Your task to perform on an android device: install app "Google Translate" Image 0: 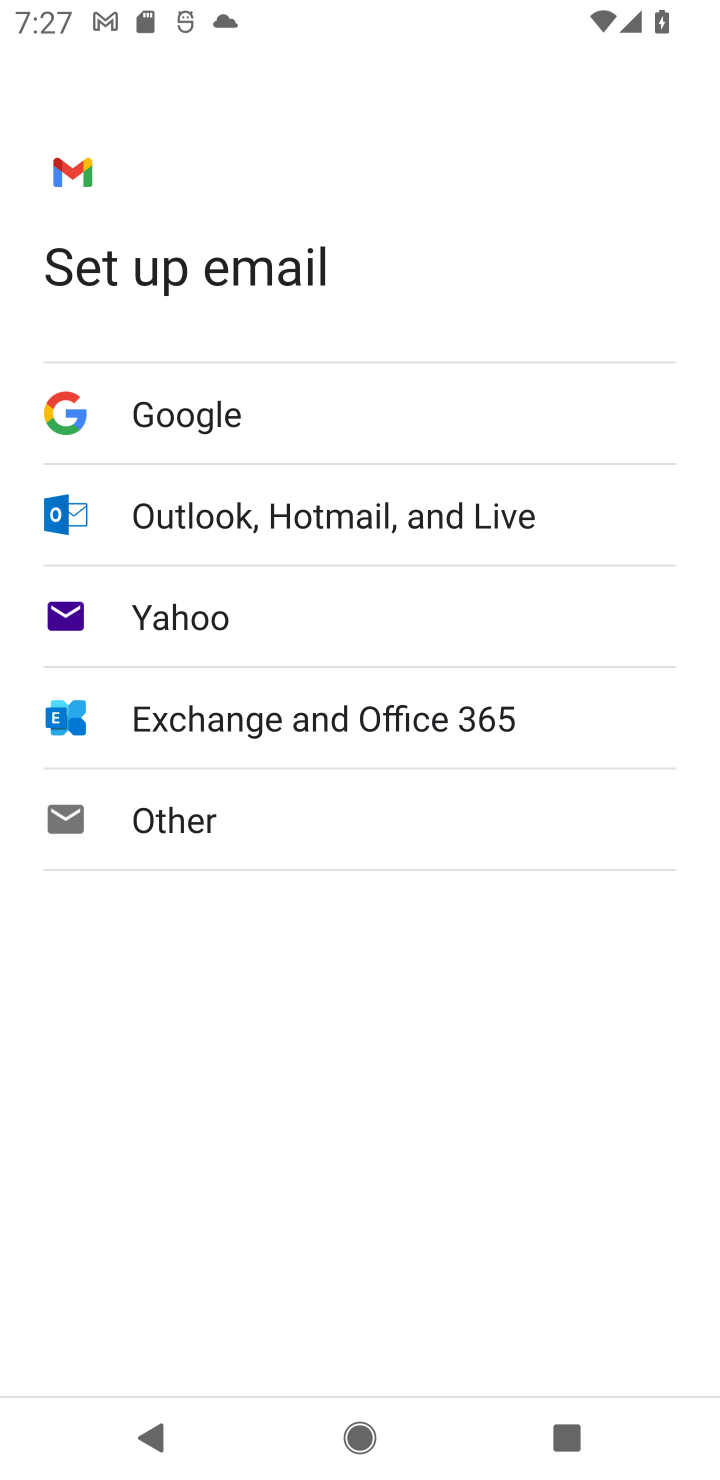
Step 0: press home button
Your task to perform on an android device: install app "Google Translate" Image 1: 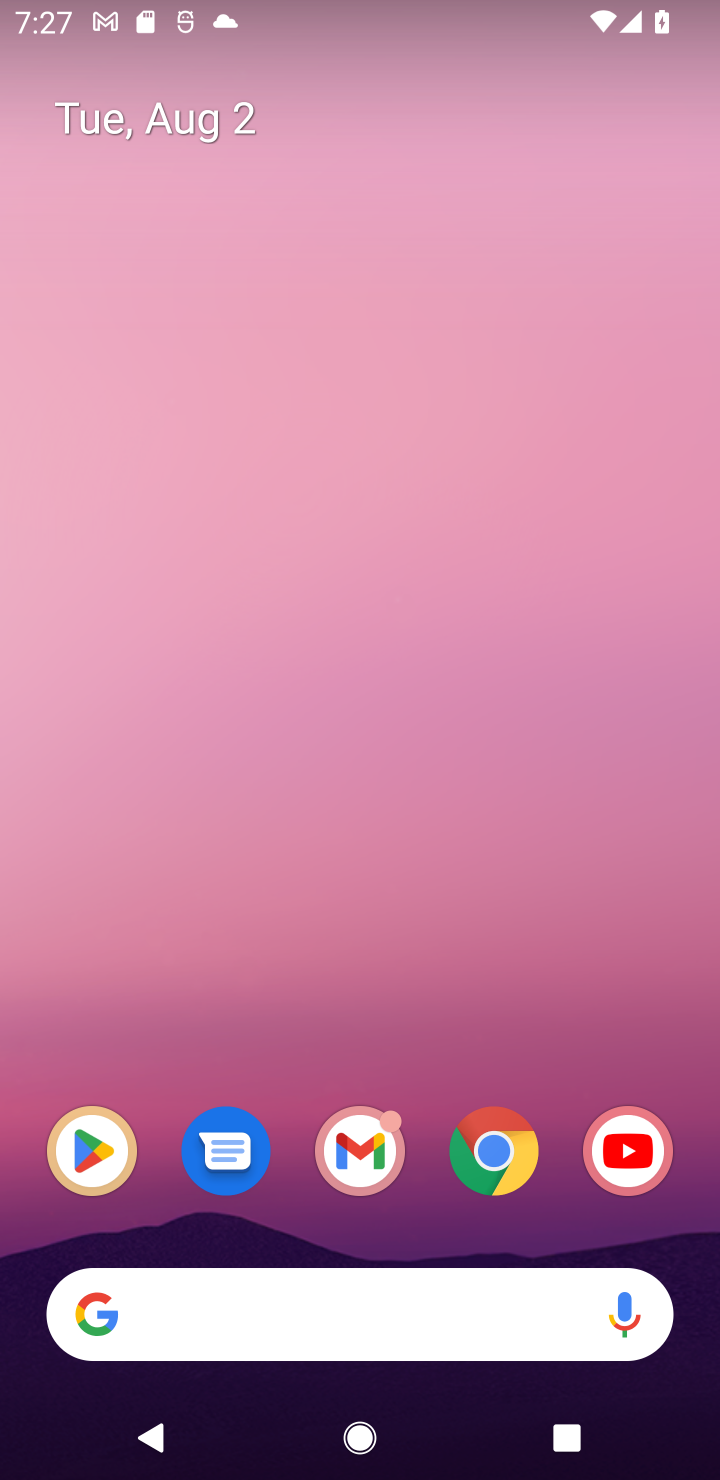
Step 1: click (109, 1159)
Your task to perform on an android device: install app "Google Translate" Image 2: 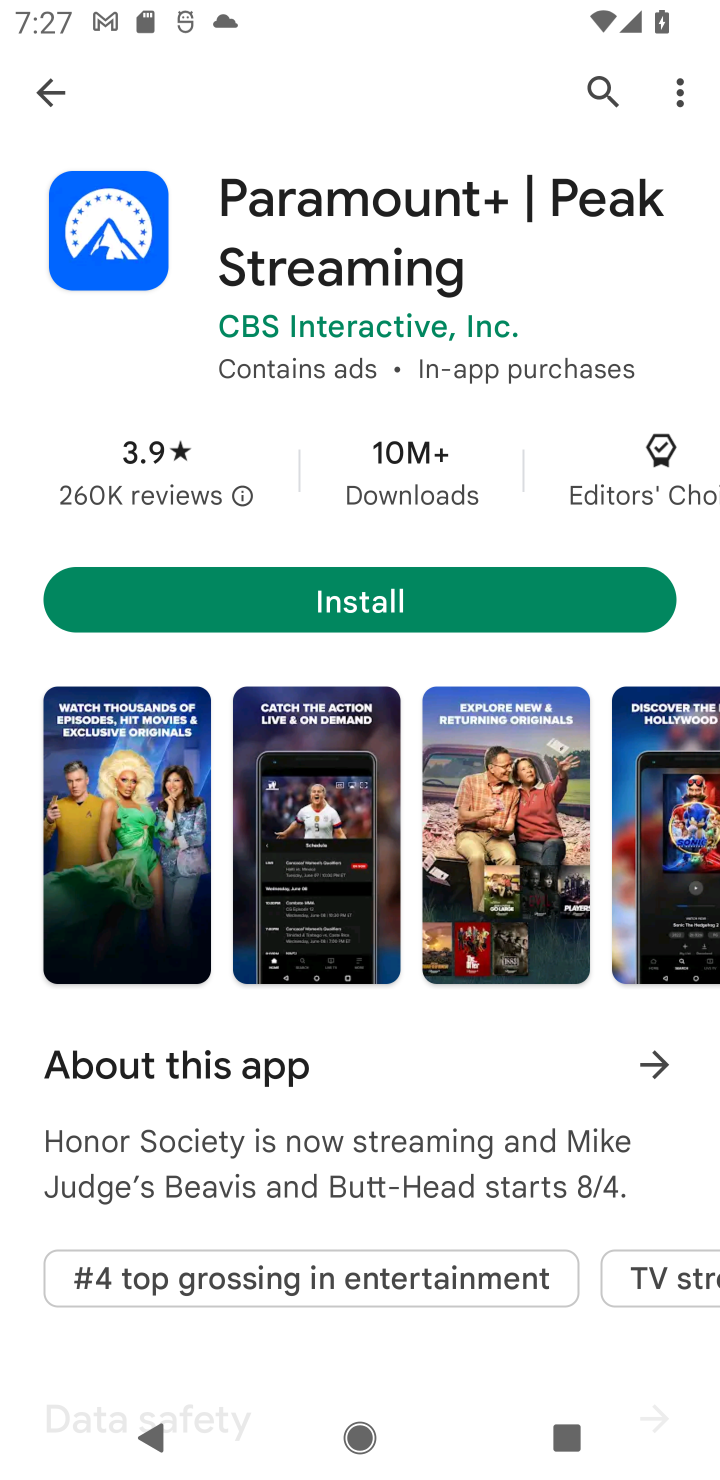
Step 2: click (603, 94)
Your task to perform on an android device: install app "Google Translate" Image 3: 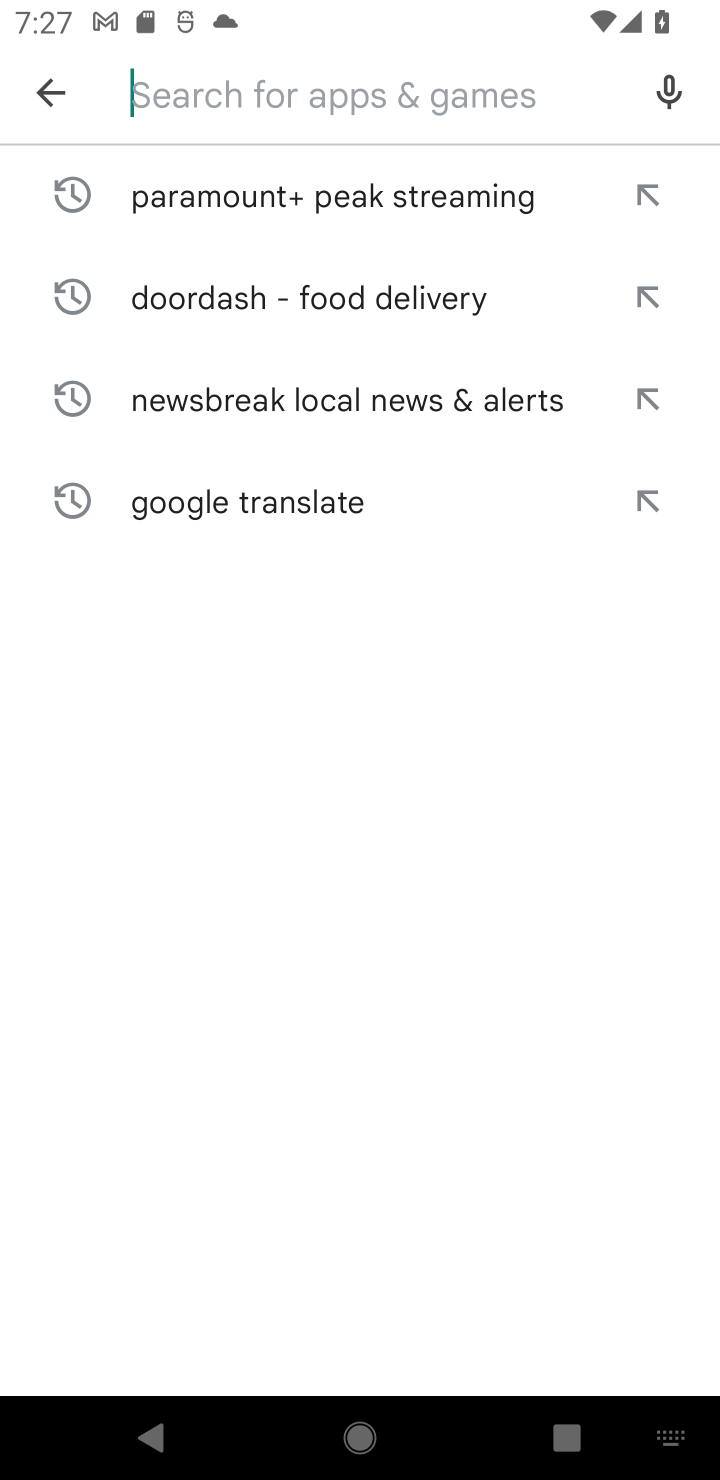
Step 3: type "Google Translate"
Your task to perform on an android device: install app "Google Translate" Image 4: 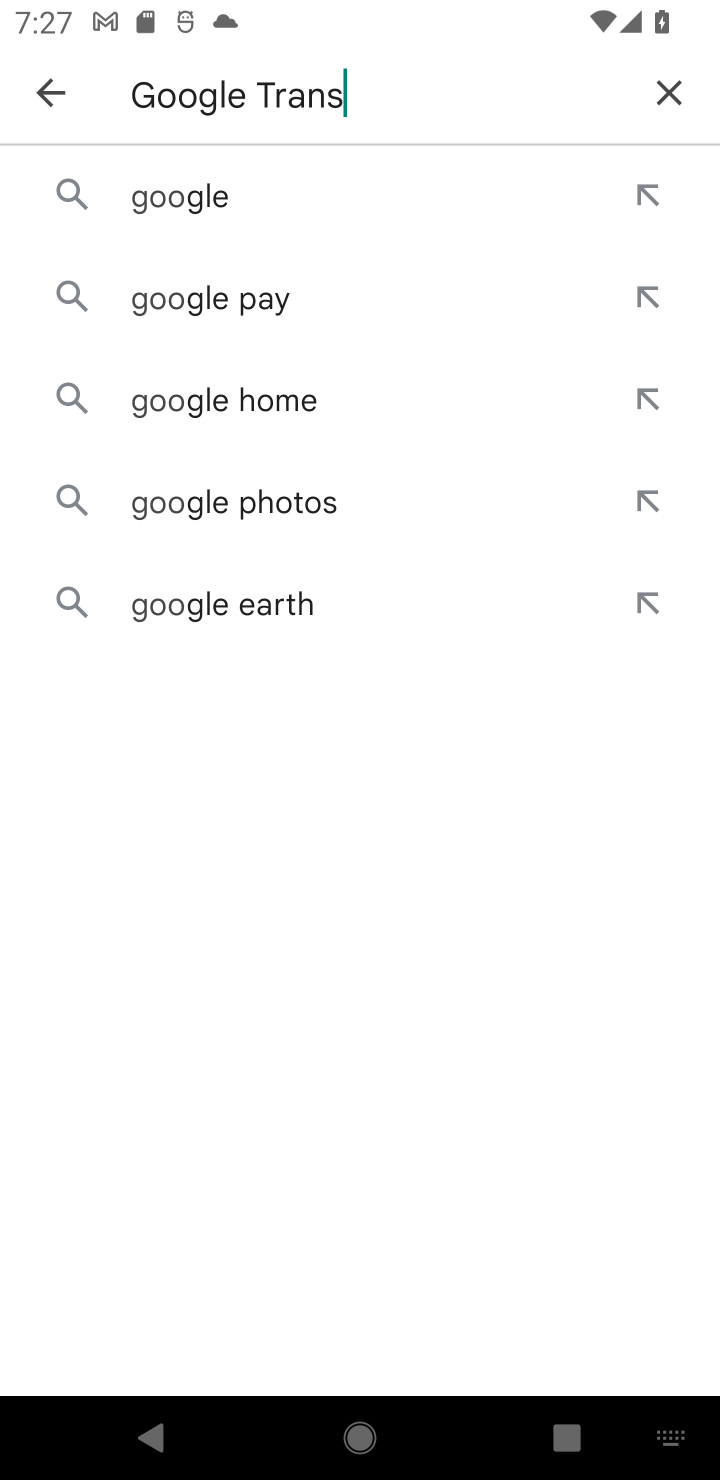
Step 4: type ""
Your task to perform on an android device: install app "Google Translate" Image 5: 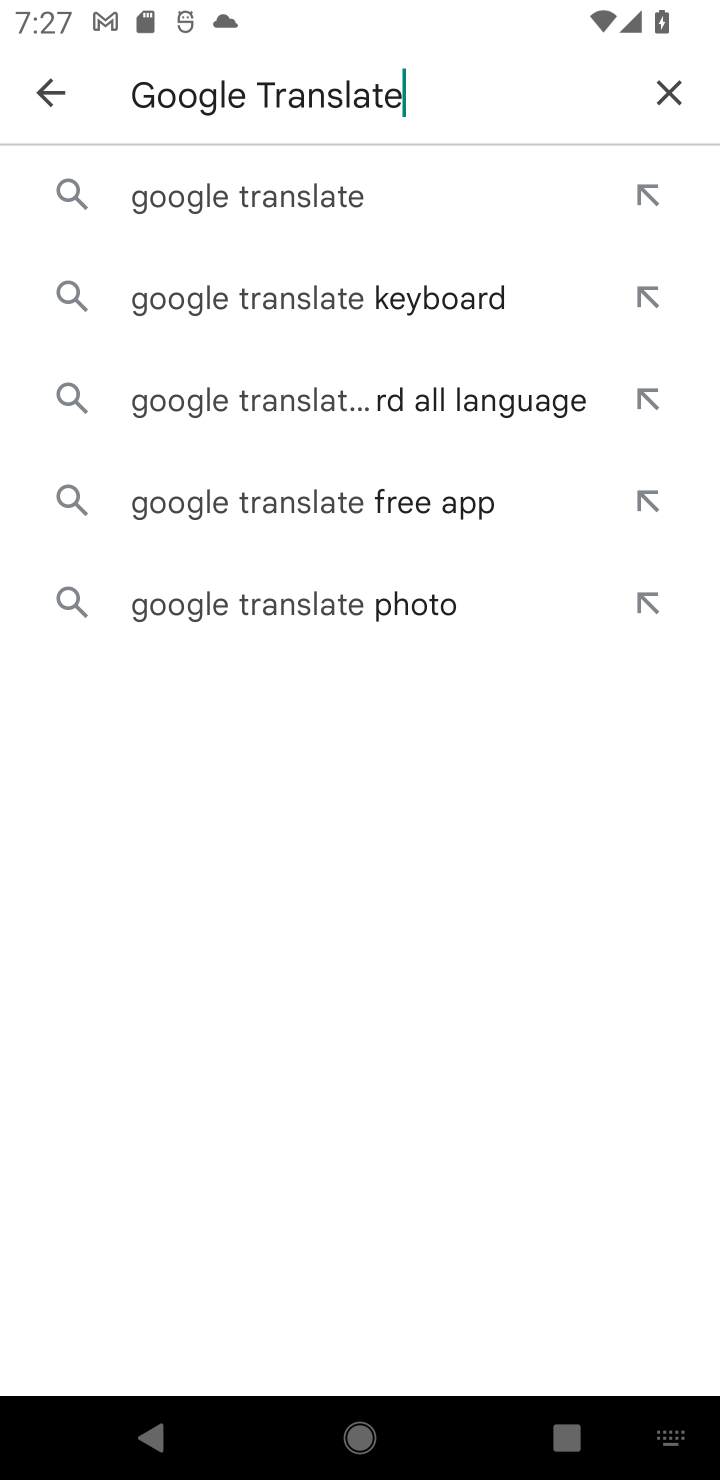
Step 5: click (318, 212)
Your task to perform on an android device: install app "Google Translate" Image 6: 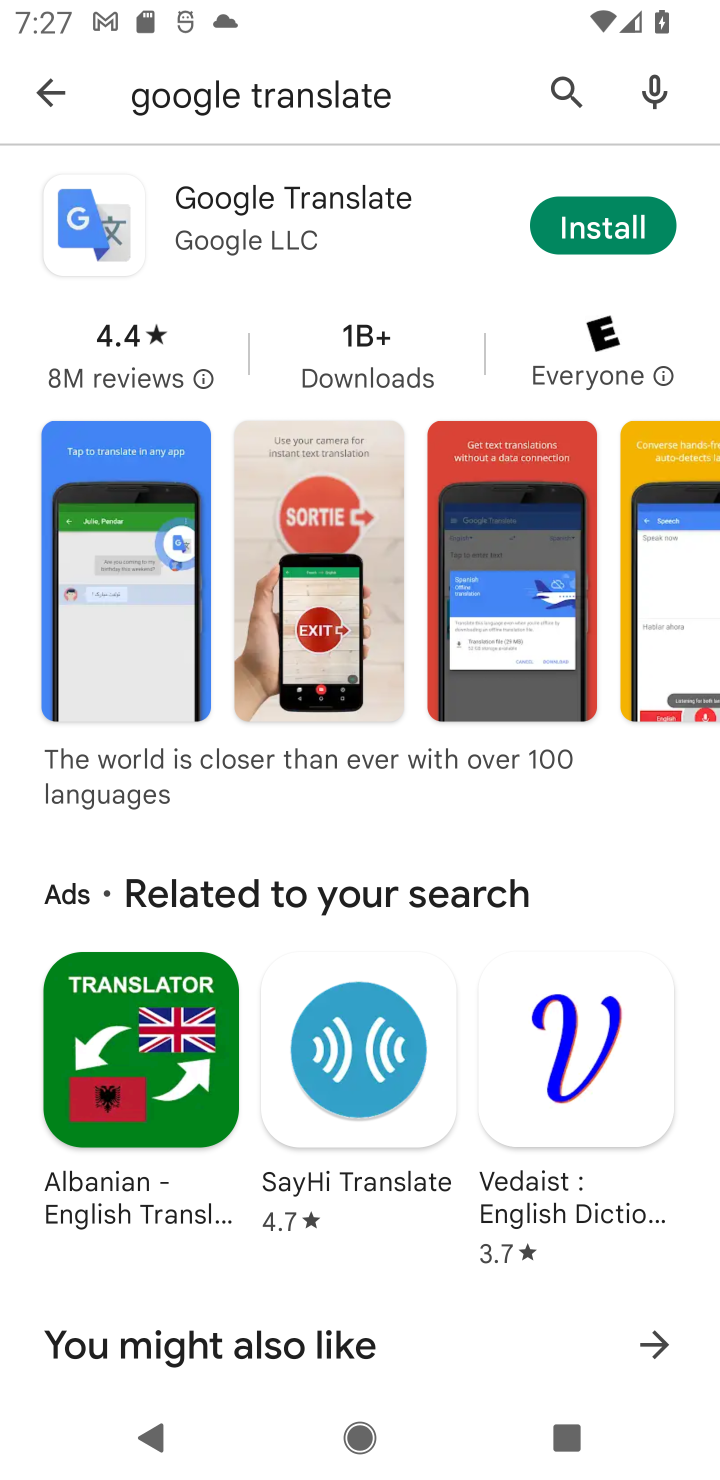
Step 6: click (589, 219)
Your task to perform on an android device: install app "Google Translate" Image 7: 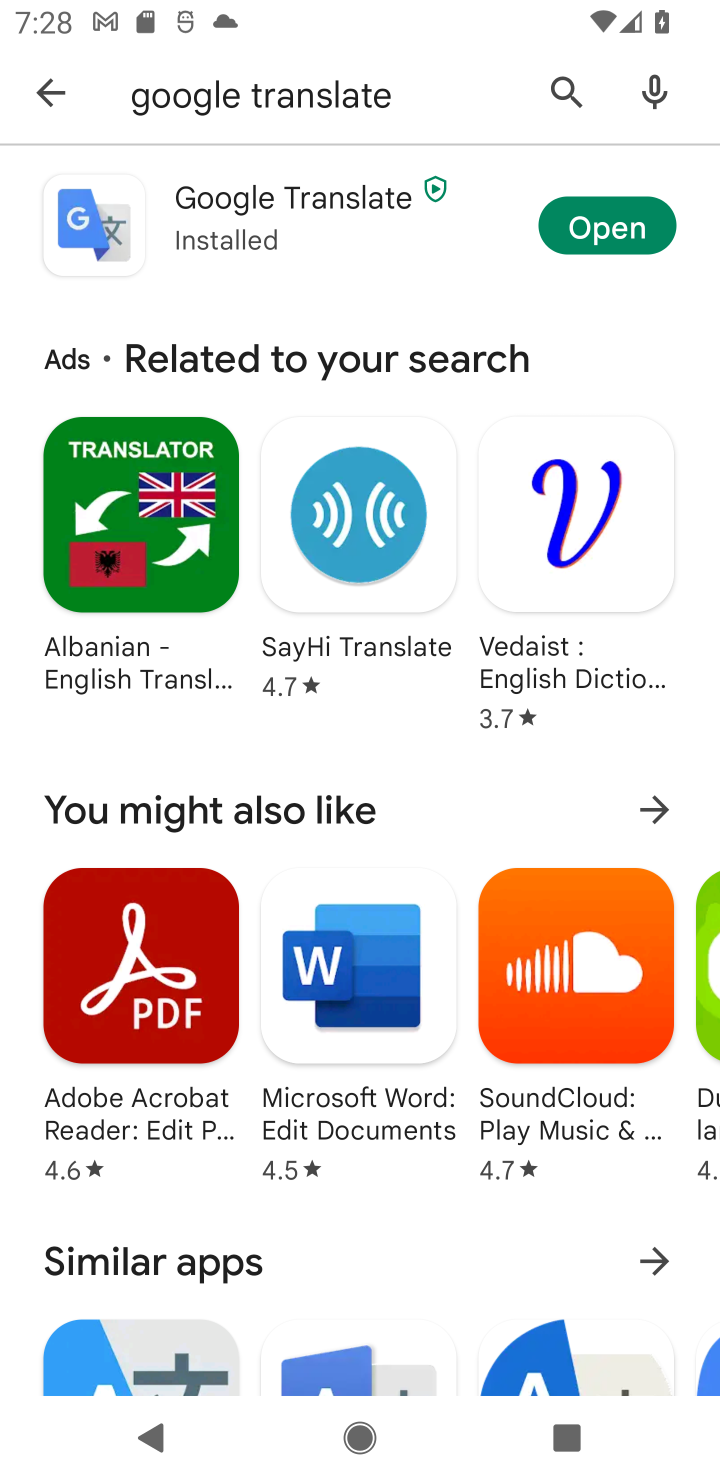
Step 7: task complete